Your task to perform on an android device: Empty the shopping cart on walmart. Search for "amazon basics triple a" on walmart, select the first entry, and add it to the cart. Image 0: 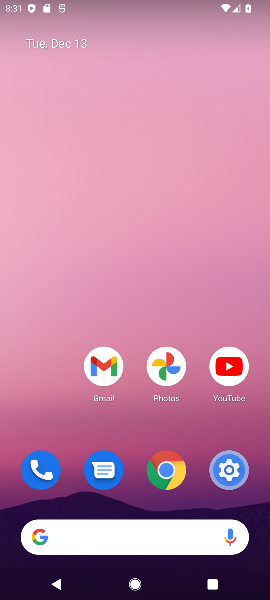
Step 0: press home button
Your task to perform on an android device: Empty the shopping cart on walmart. Search for "amazon basics triple a" on walmart, select the first entry, and add it to the cart. Image 1: 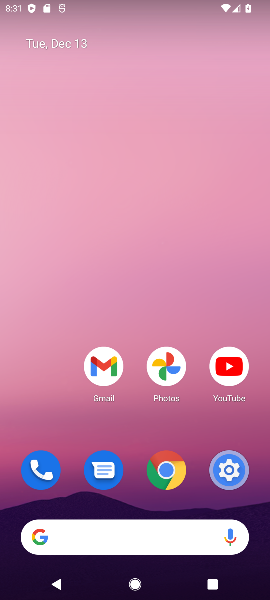
Step 1: click (56, 538)
Your task to perform on an android device: Empty the shopping cart on walmart. Search for "amazon basics triple a" on walmart, select the first entry, and add it to the cart. Image 2: 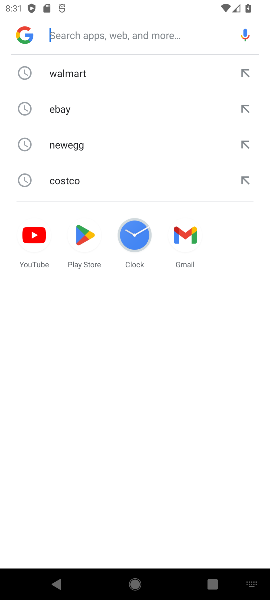
Step 2: type "walmart"
Your task to perform on an android device: Empty the shopping cart on walmart. Search for "amazon basics triple a" on walmart, select the first entry, and add it to the cart. Image 3: 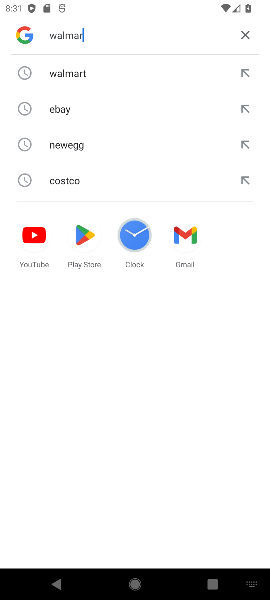
Step 3: press enter
Your task to perform on an android device: Empty the shopping cart on walmart. Search for "amazon basics triple a" on walmart, select the first entry, and add it to the cart. Image 4: 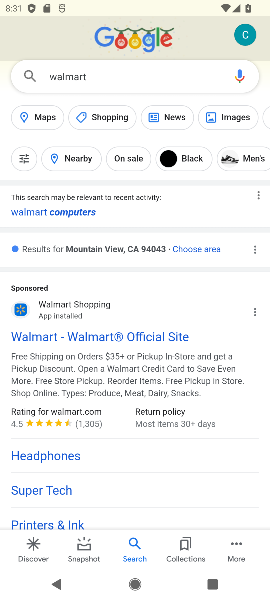
Step 4: click (109, 339)
Your task to perform on an android device: Empty the shopping cart on walmart. Search for "amazon basics triple a" on walmart, select the first entry, and add it to the cart. Image 5: 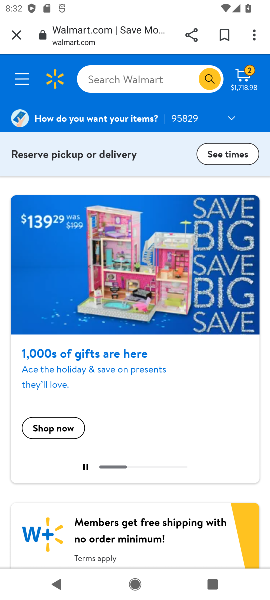
Step 5: click (240, 68)
Your task to perform on an android device: Empty the shopping cart on walmart. Search for "amazon basics triple a" on walmart, select the first entry, and add it to the cart. Image 6: 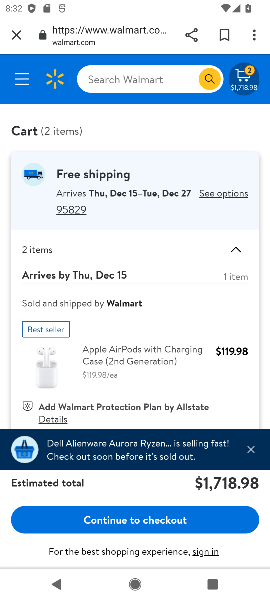
Step 6: drag from (105, 381) to (130, 175)
Your task to perform on an android device: Empty the shopping cart on walmart. Search for "amazon basics triple a" on walmart, select the first entry, and add it to the cart. Image 7: 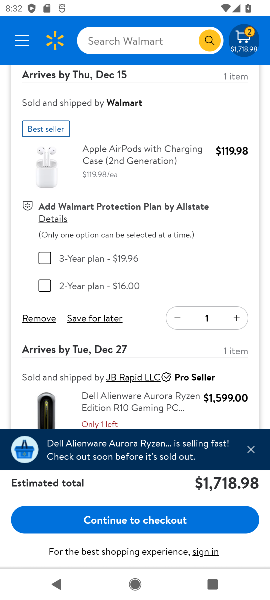
Step 7: click (38, 321)
Your task to perform on an android device: Empty the shopping cart on walmart. Search for "amazon basics triple a" on walmart, select the first entry, and add it to the cart. Image 8: 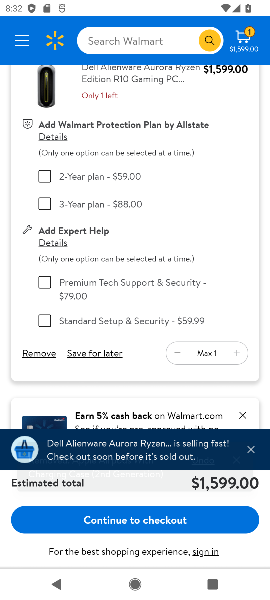
Step 8: click (36, 352)
Your task to perform on an android device: Empty the shopping cart on walmart. Search for "amazon basics triple a" on walmart, select the first entry, and add it to the cart. Image 9: 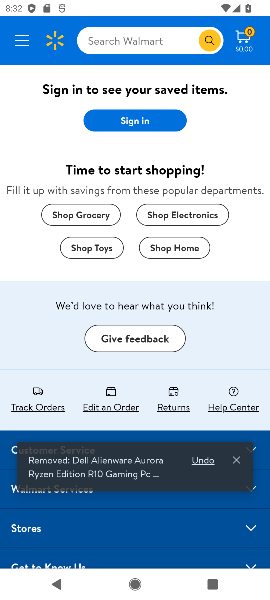
Step 9: click (107, 40)
Your task to perform on an android device: Empty the shopping cart on walmart. Search for "amazon basics triple a" on walmart, select the first entry, and add it to the cart. Image 10: 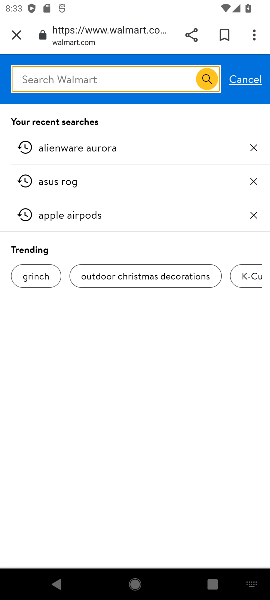
Step 10: type "amazon basics triple a"
Your task to perform on an android device: Empty the shopping cart on walmart. Search for "amazon basics triple a" on walmart, select the first entry, and add it to the cart. Image 11: 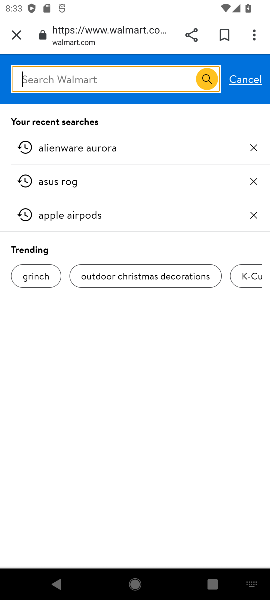
Step 11: press enter
Your task to perform on an android device: Empty the shopping cart on walmart. Search for "amazon basics triple a" on walmart, select the first entry, and add it to the cart. Image 12: 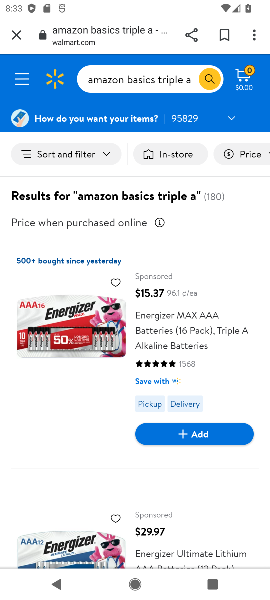
Step 12: click (200, 434)
Your task to perform on an android device: Empty the shopping cart on walmart. Search for "amazon basics triple a" on walmart, select the first entry, and add it to the cart. Image 13: 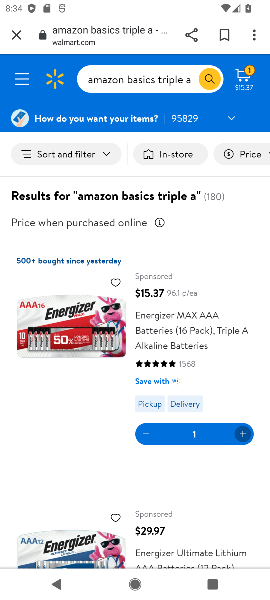
Step 13: task complete